Your task to perform on an android device: turn on sleep mode Image 0: 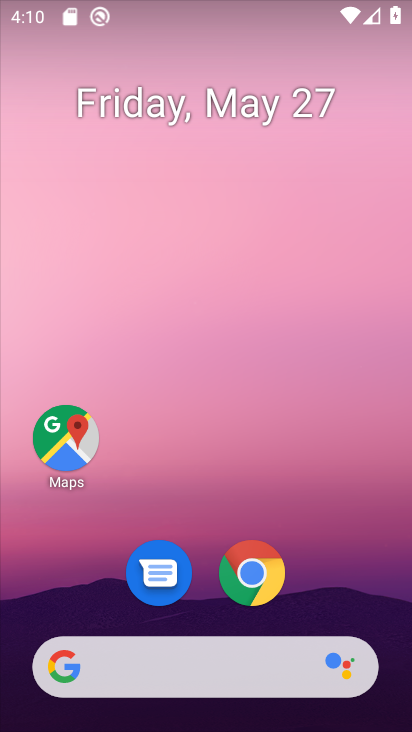
Step 0: drag from (321, 571) to (333, 36)
Your task to perform on an android device: turn on sleep mode Image 1: 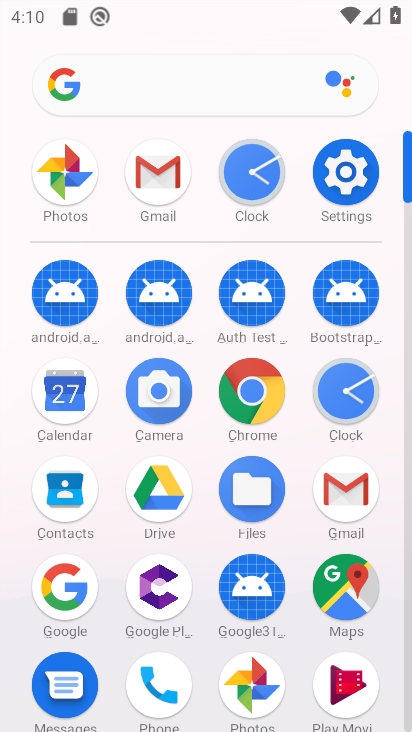
Step 1: click (338, 175)
Your task to perform on an android device: turn on sleep mode Image 2: 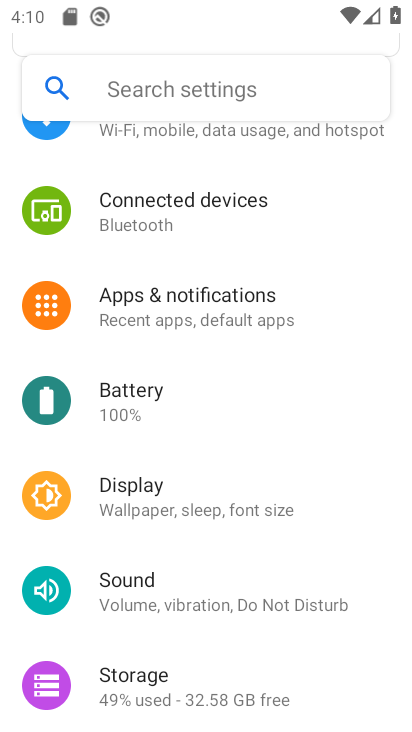
Step 2: click (227, 507)
Your task to perform on an android device: turn on sleep mode Image 3: 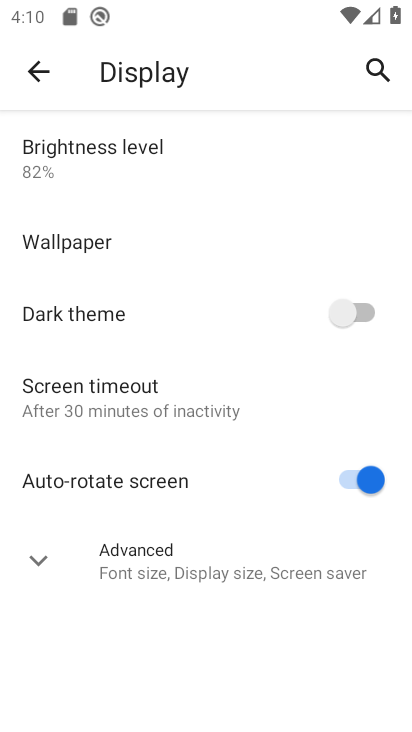
Step 3: click (39, 553)
Your task to perform on an android device: turn on sleep mode Image 4: 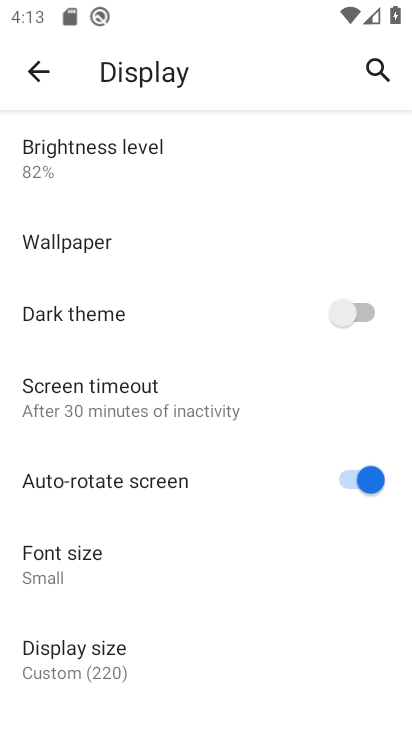
Step 4: task complete